Your task to perform on an android device: Open accessibility settings Image 0: 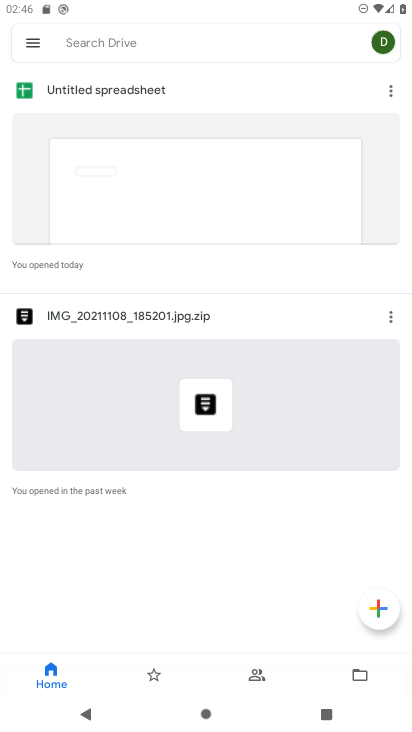
Step 0: press home button
Your task to perform on an android device: Open accessibility settings Image 1: 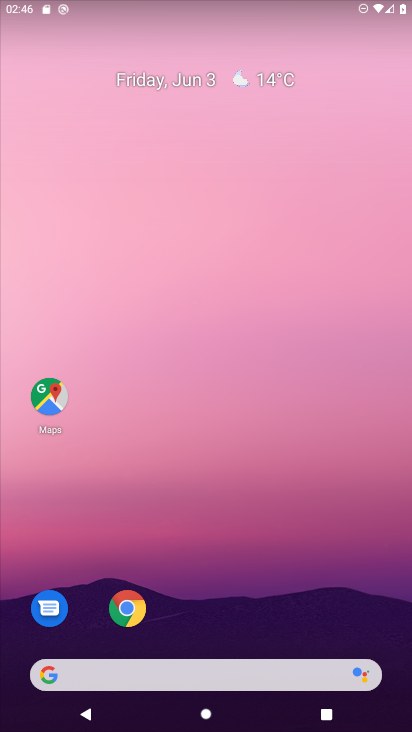
Step 1: drag from (257, 571) to (311, 178)
Your task to perform on an android device: Open accessibility settings Image 2: 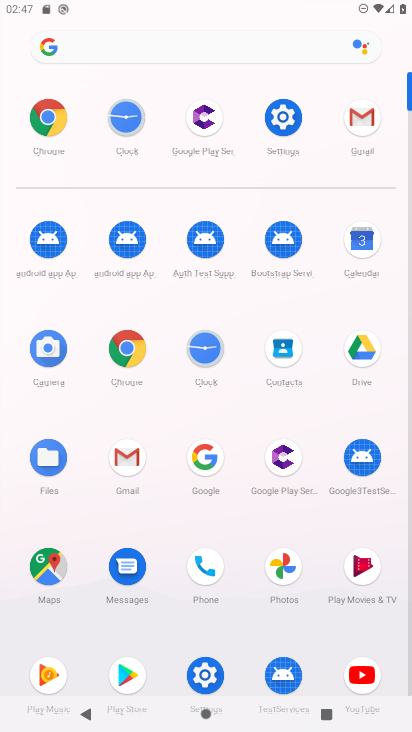
Step 2: click (285, 120)
Your task to perform on an android device: Open accessibility settings Image 3: 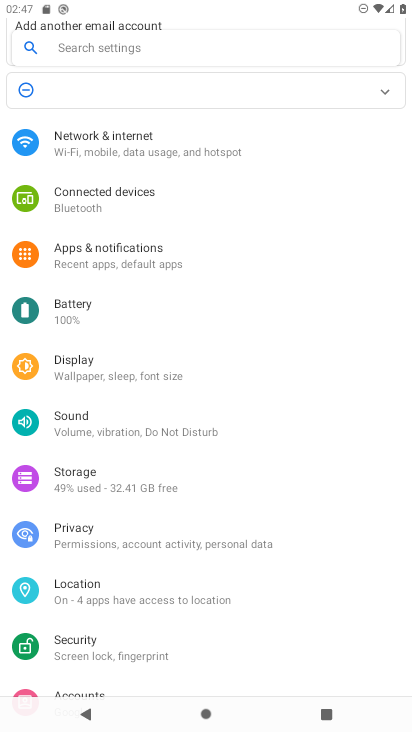
Step 3: drag from (178, 447) to (287, 0)
Your task to perform on an android device: Open accessibility settings Image 4: 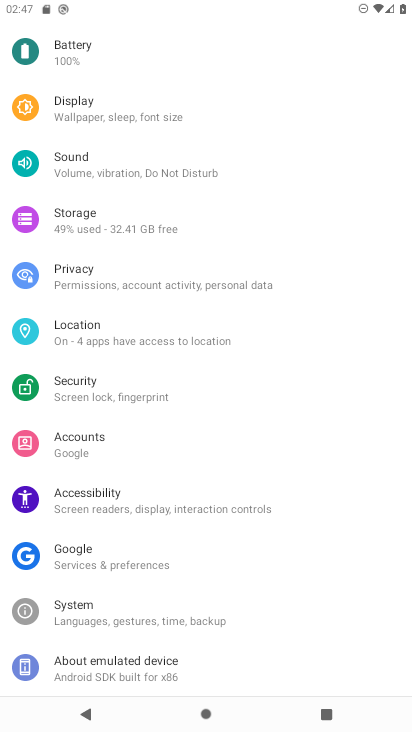
Step 4: drag from (126, 600) to (219, 311)
Your task to perform on an android device: Open accessibility settings Image 5: 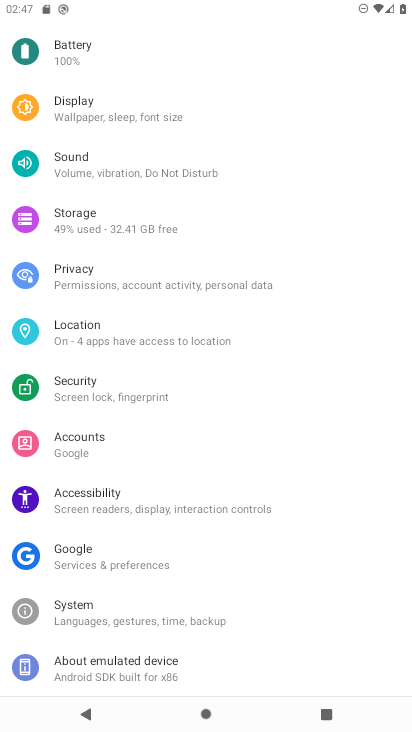
Step 5: click (88, 516)
Your task to perform on an android device: Open accessibility settings Image 6: 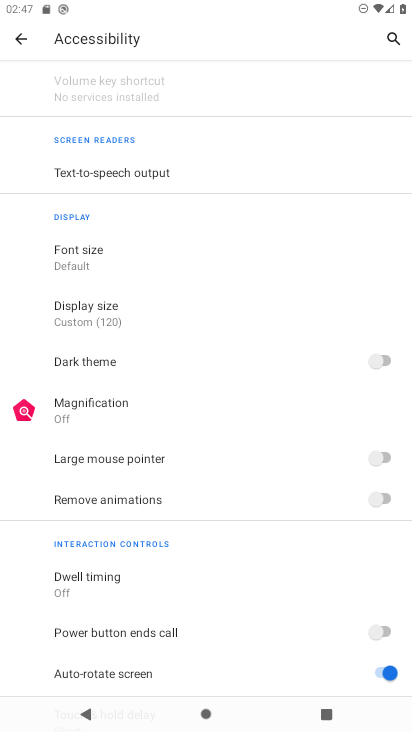
Step 6: task complete